Your task to perform on an android device: allow cookies in the chrome app Image 0: 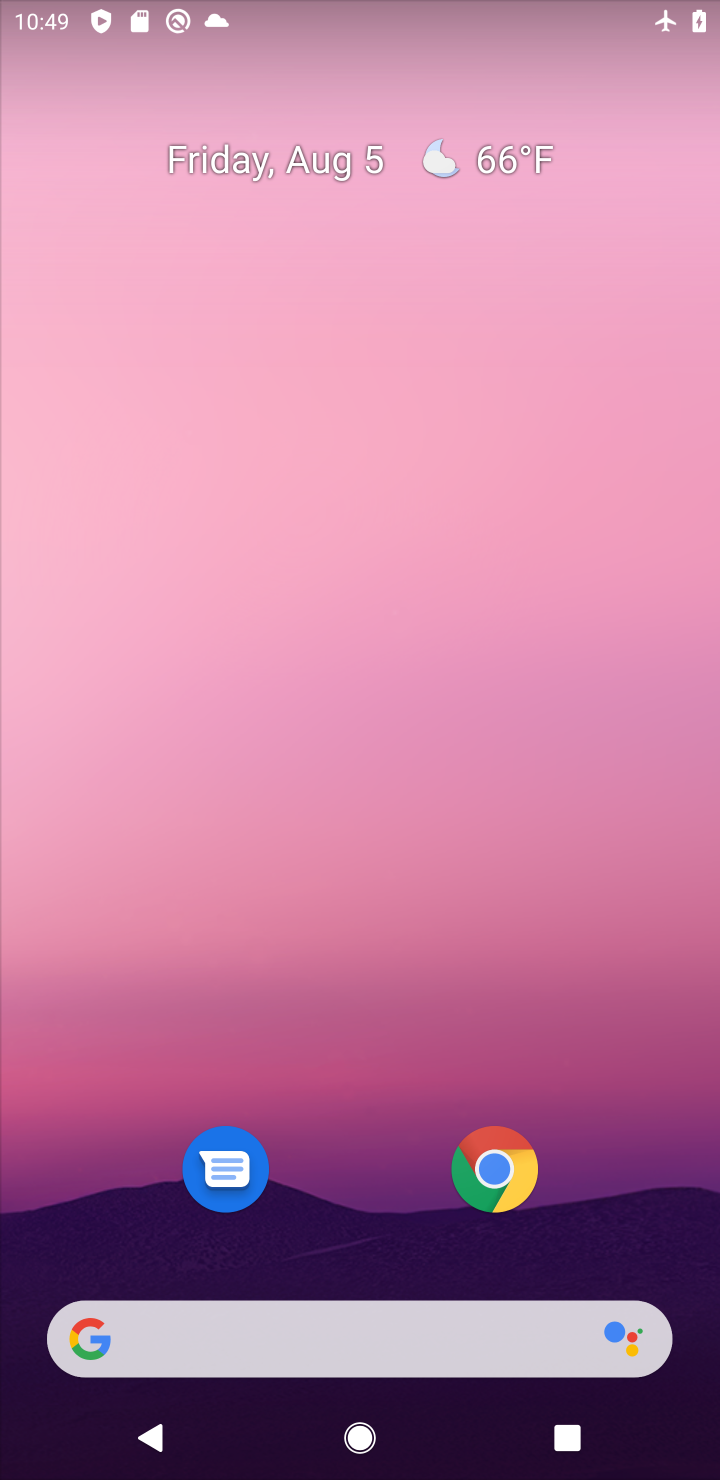
Step 0: click (493, 1170)
Your task to perform on an android device: allow cookies in the chrome app Image 1: 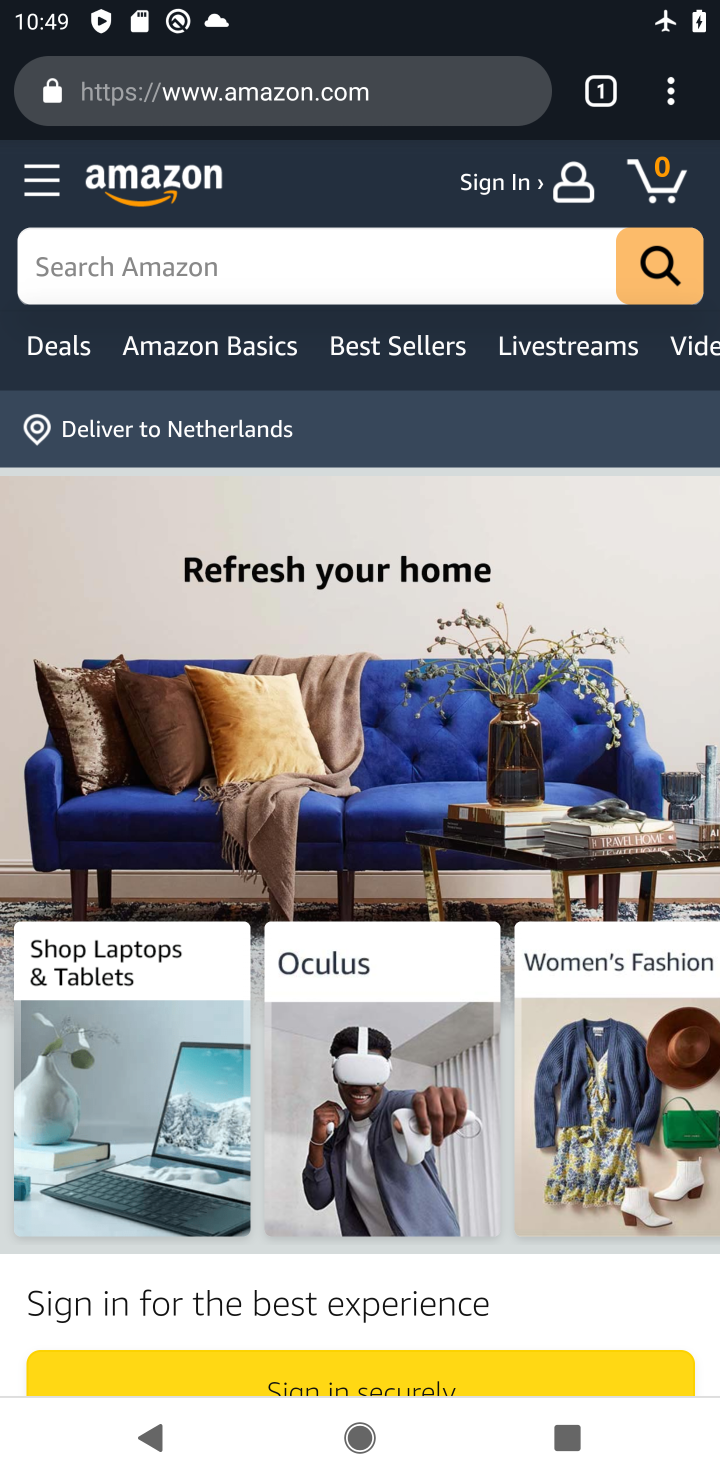
Step 1: click (658, 103)
Your task to perform on an android device: allow cookies in the chrome app Image 2: 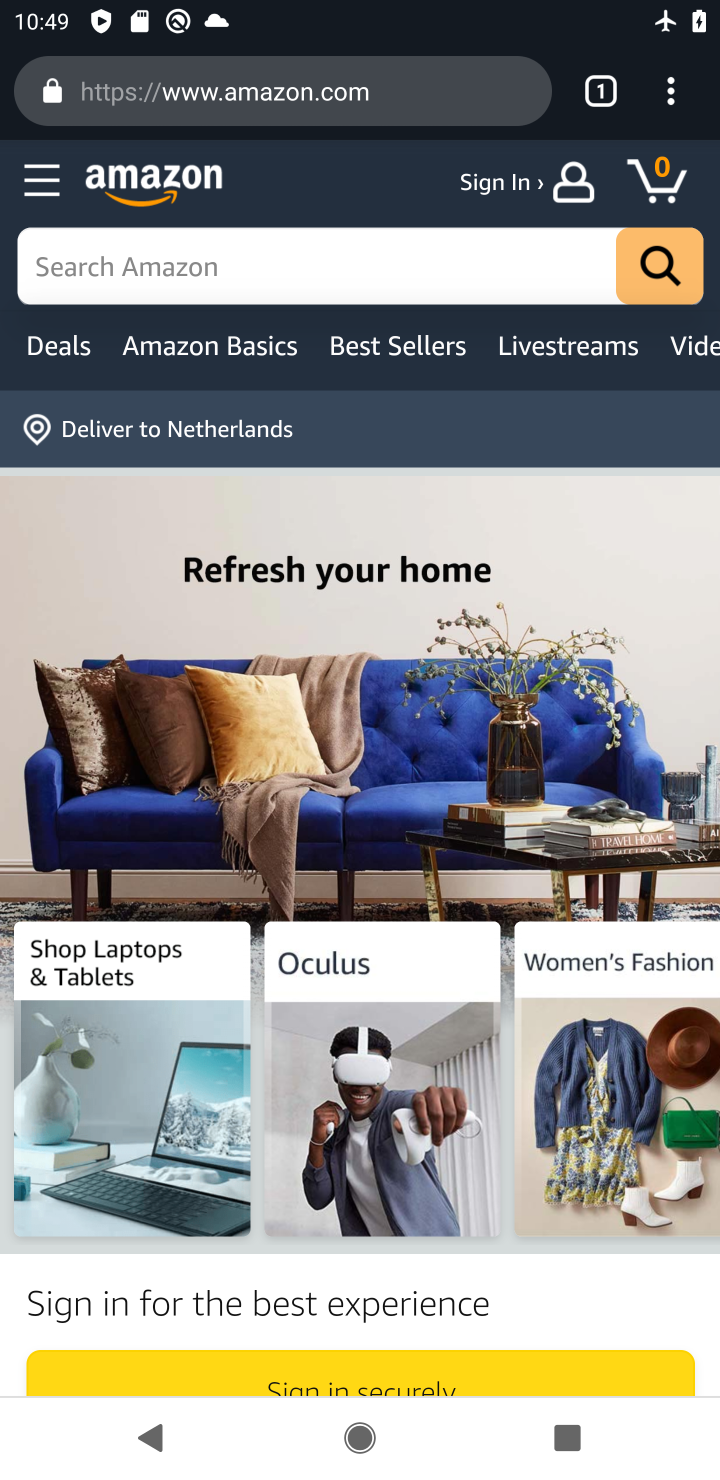
Step 2: click (660, 110)
Your task to perform on an android device: allow cookies in the chrome app Image 3: 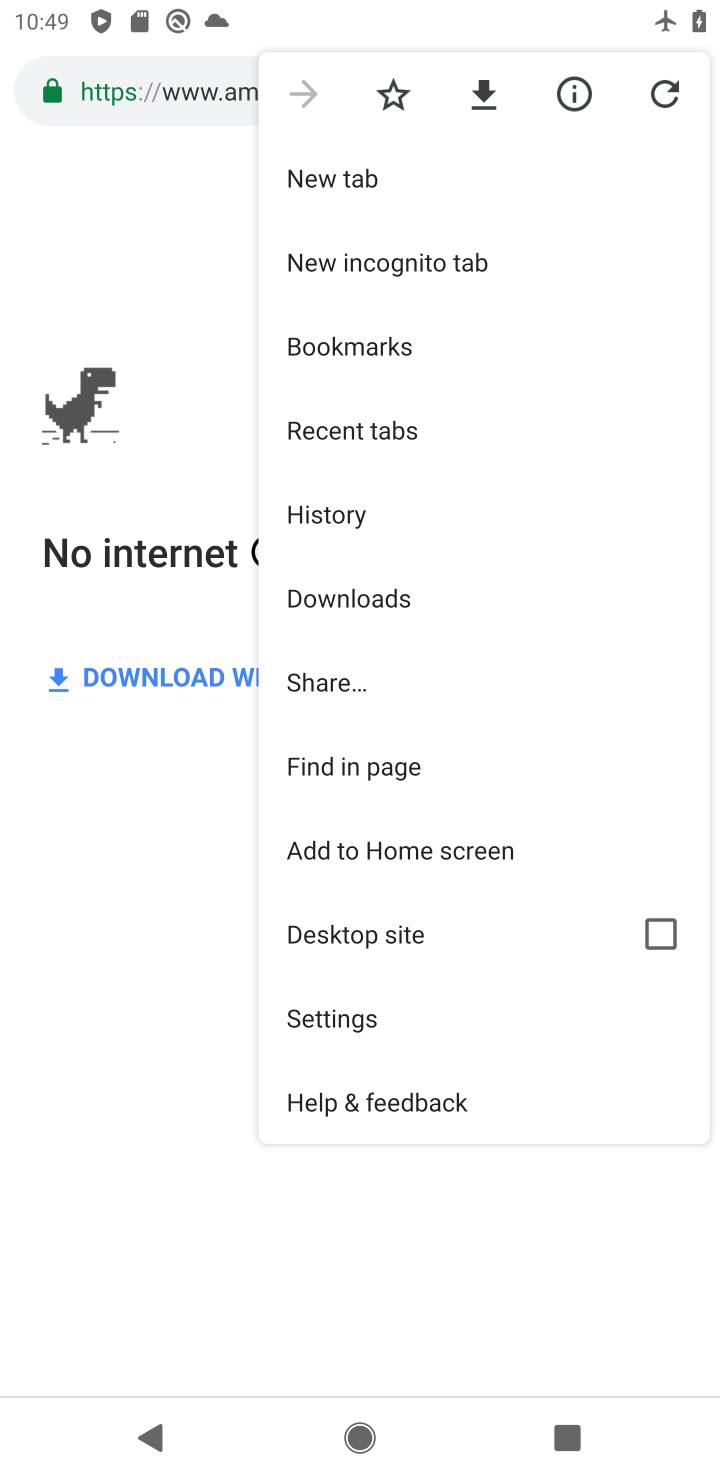
Step 3: click (341, 1001)
Your task to perform on an android device: allow cookies in the chrome app Image 4: 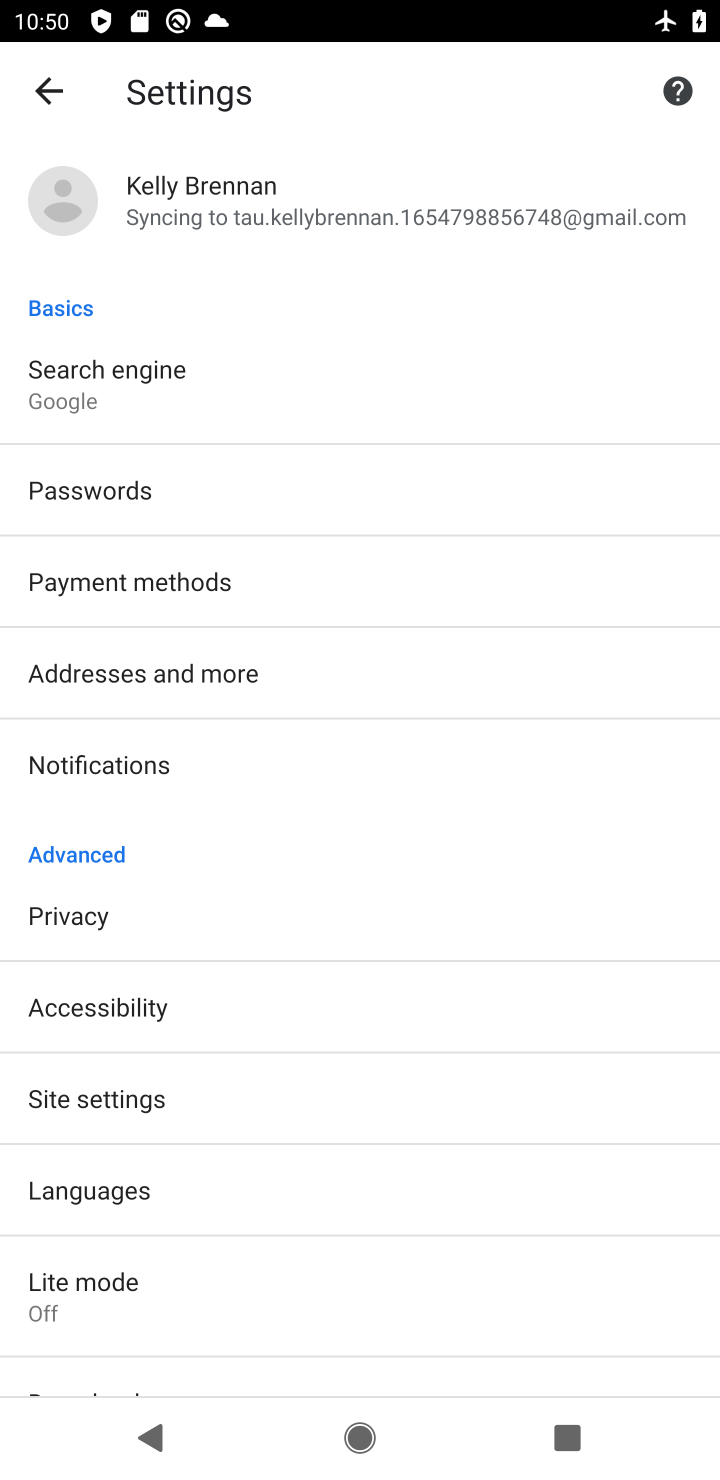
Step 4: click (137, 1105)
Your task to perform on an android device: allow cookies in the chrome app Image 5: 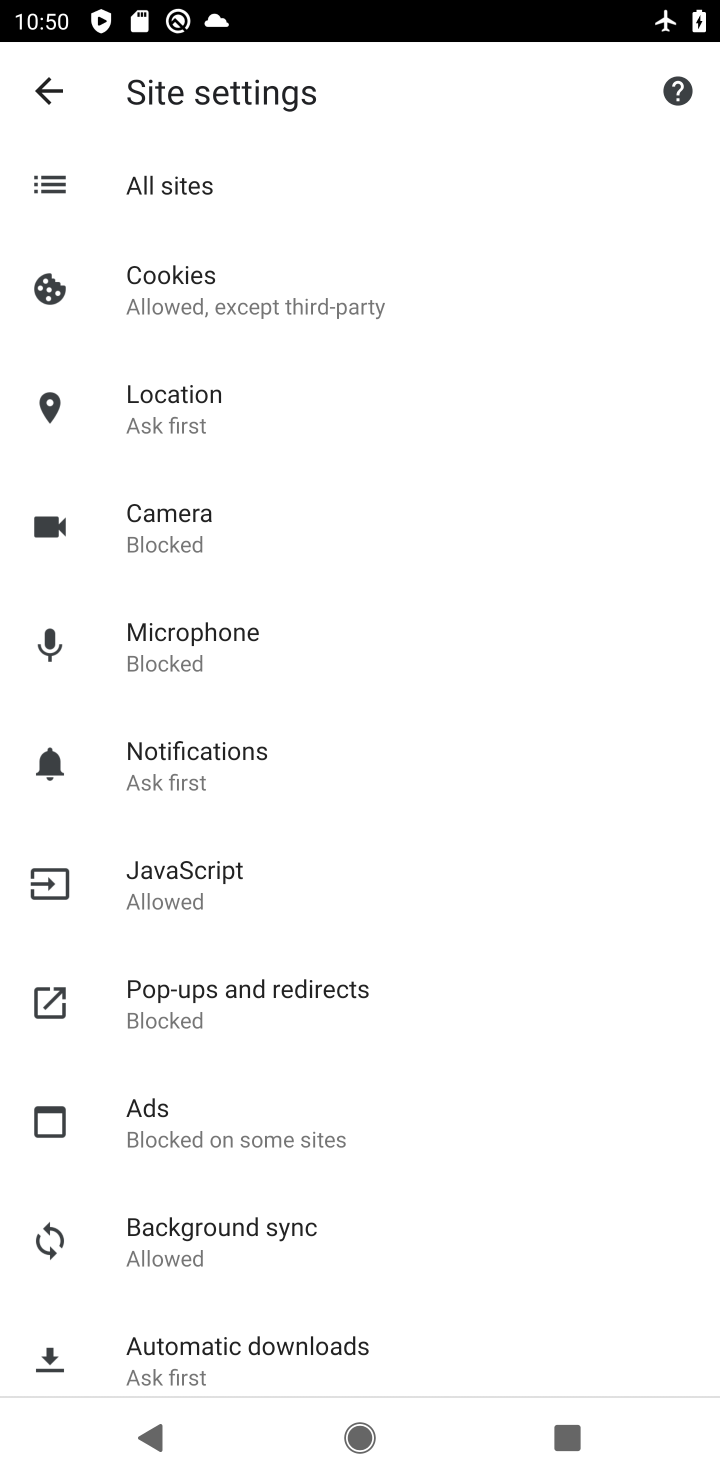
Step 5: click (198, 286)
Your task to perform on an android device: allow cookies in the chrome app Image 6: 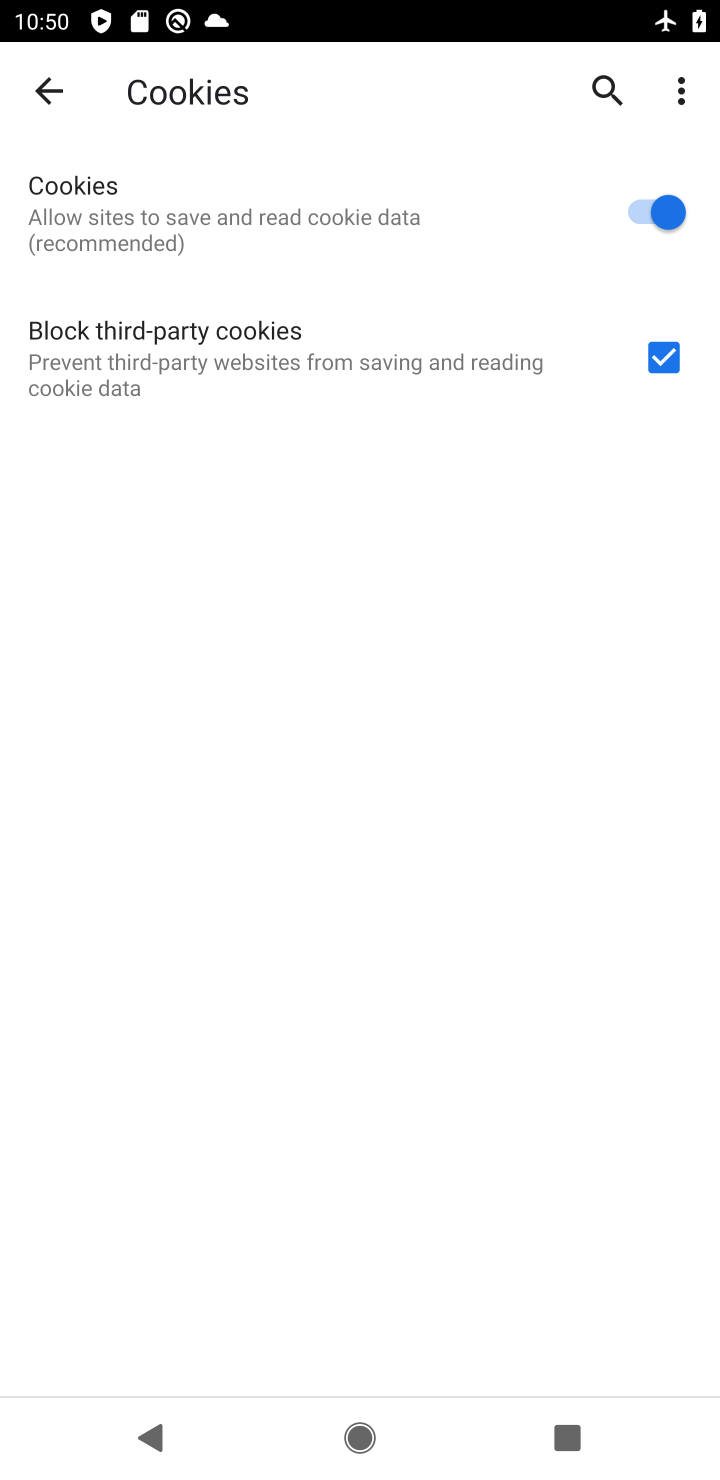
Step 6: task complete